Your task to perform on an android device: Open Youtube and go to the subscriptions tab Image 0: 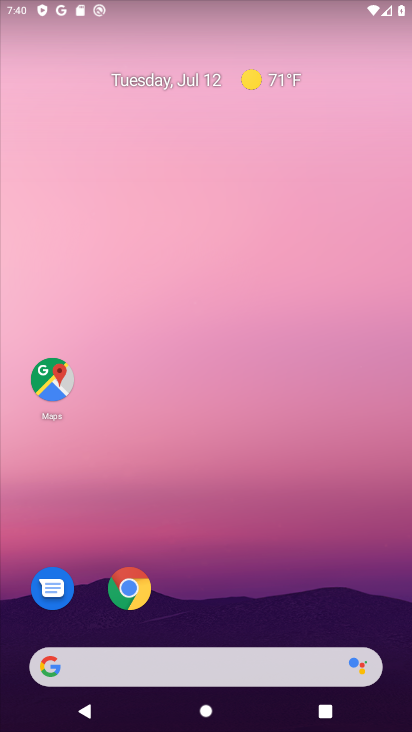
Step 0: drag from (75, 639) to (299, 63)
Your task to perform on an android device: Open Youtube and go to the subscriptions tab Image 1: 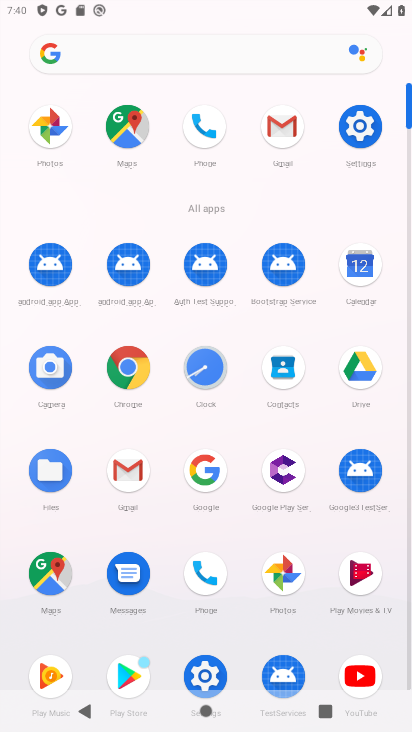
Step 1: click (349, 677)
Your task to perform on an android device: Open Youtube and go to the subscriptions tab Image 2: 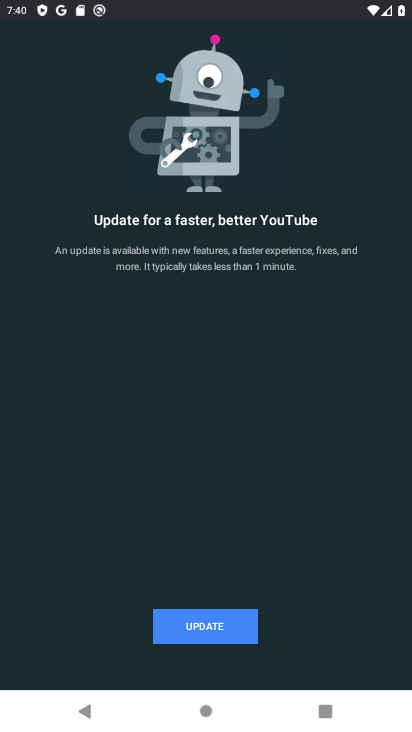
Step 2: click (216, 625)
Your task to perform on an android device: Open Youtube and go to the subscriptions tab Image 3: 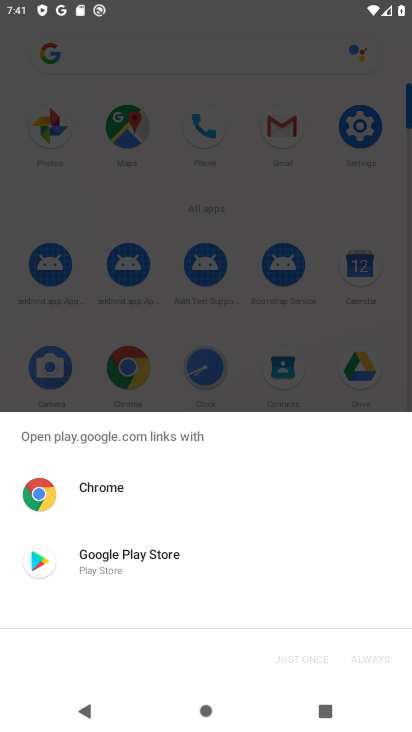
Step 3: click (100, 548)
Your task to perform on an android device: Open Youtube and go to the subscriptions tab Image 4: 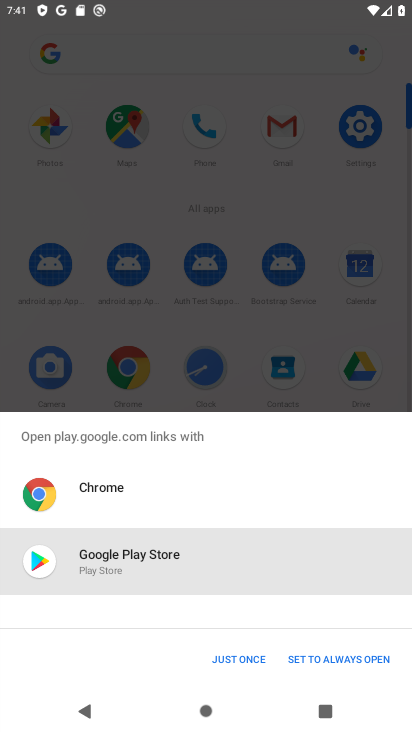
Step 4: click (214, 662)
Your task to perform on an android device: Open Youtube and go to the subscriptions tab Image 5: 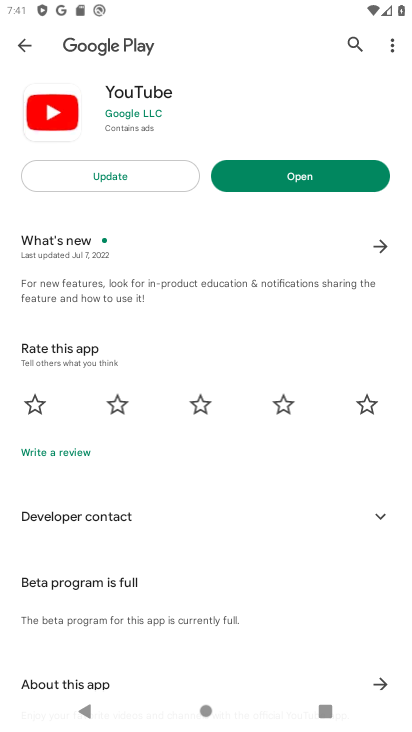
Step 5: click (291, 167)
Your task to perform on an android device: Open Youtube and go to the subscriptions tab Image 6: 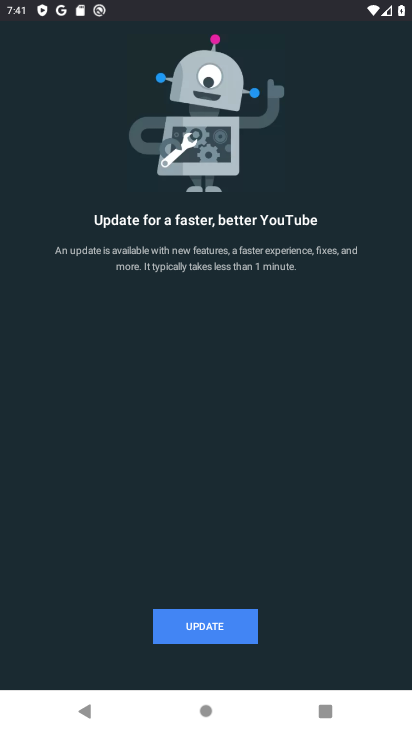
Step 6: task complete